Your task to perform on an android device: toggle wifi Image 0: 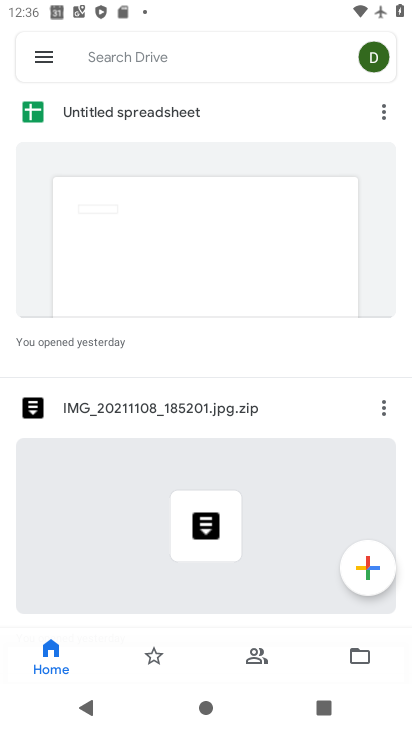
Step 0: press home button
Your task to perform on an android device: toggle wifi Image 1: 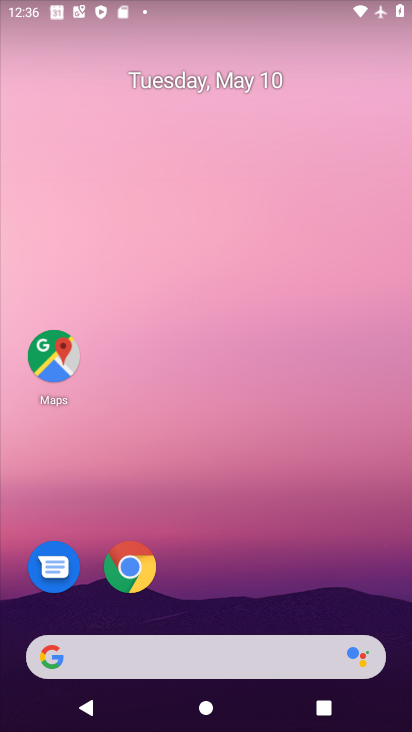
Step 1: drag from (383, 603) to (280, 47)
Your task to perform on an android device: toggle wifi Image 2: 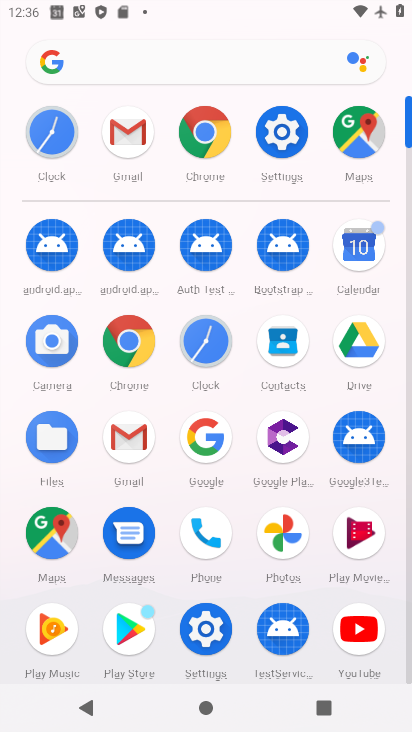
Step 2: drag from (184, 4) to (201, 492)
Your task to perform on an android device: toggle wifi Image 3: 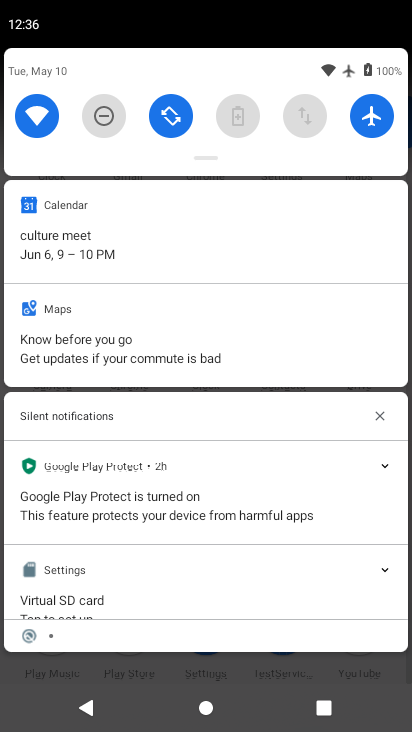
Step 3: click (43, 116)
Your task to perform on an android device: toggle wifi Image 4: 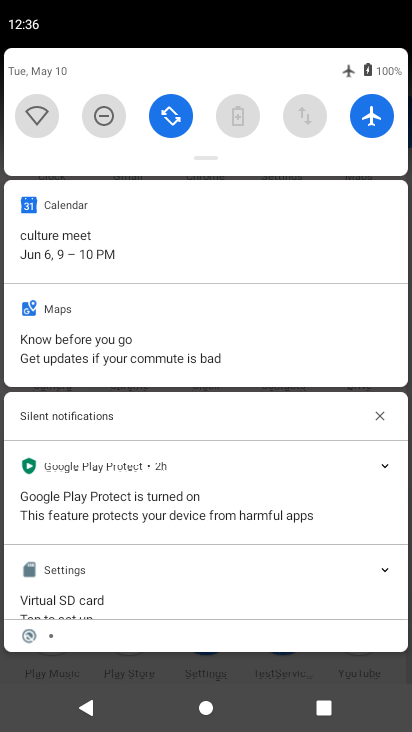
Step 4: task complete